Your task to perform on an android device: turn on the 24-hour format for clock Image 0: 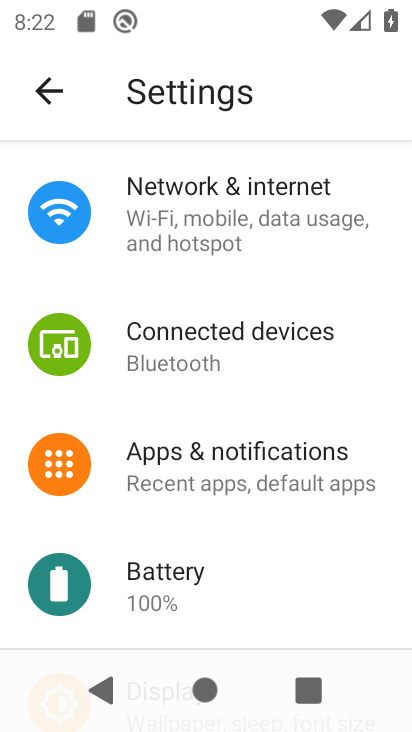
Step 0: press home button
Your task to perform on an android device: turn on the 24-hour format for clock Image 1: 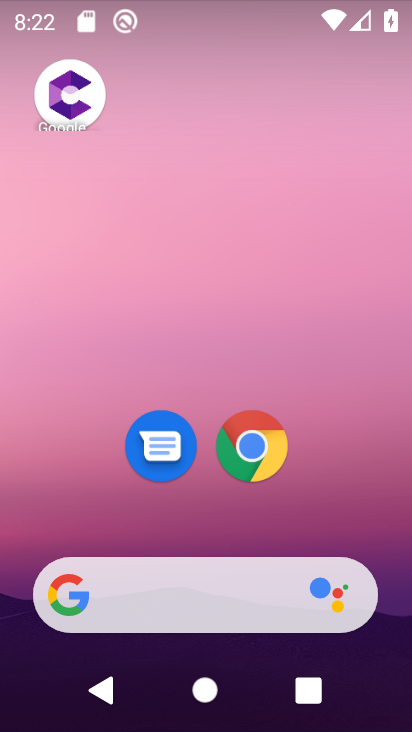
Step 1: drag from (204, 601) to (161, 105)
Your task to perform on an android device: turn on the 24-hour format for clock Image 2: 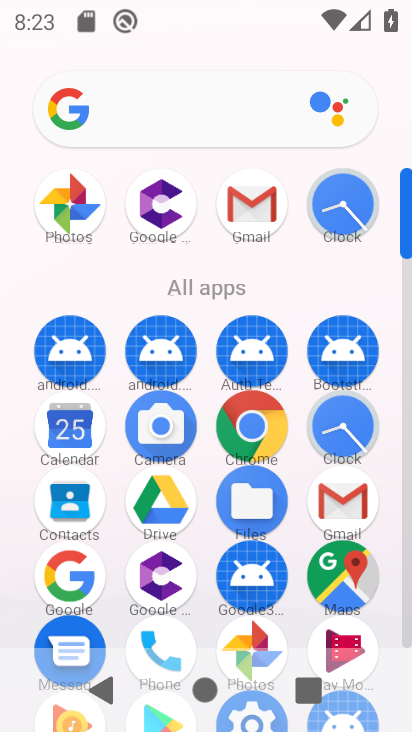
Step 2: drag from (248, 621) to (239, 325)
Your task to perform on an android device: turn on the 24-hour format for clock Image 3: 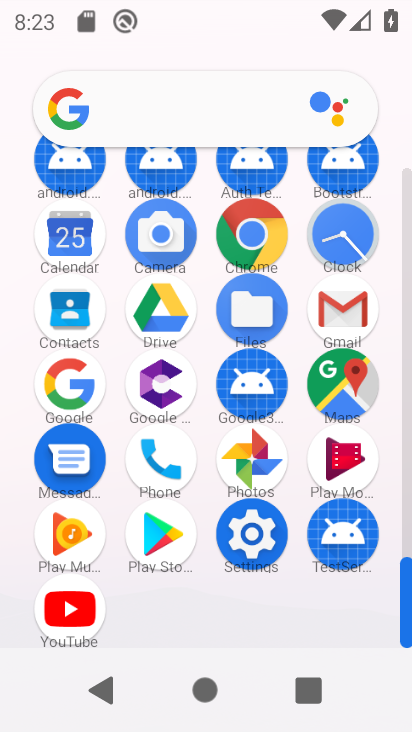
Step 3: click (235, 551)
Your task to perform on an android device: turn on the 24-hour format for clock Image 4: 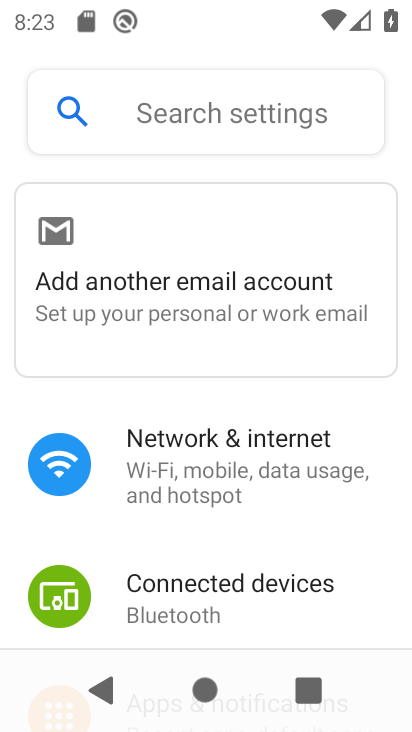
Step 4: drag from (235, 551) to (250, 38)
Your task to perform on an android device: turn on the 24-hour format for clock Image 5: 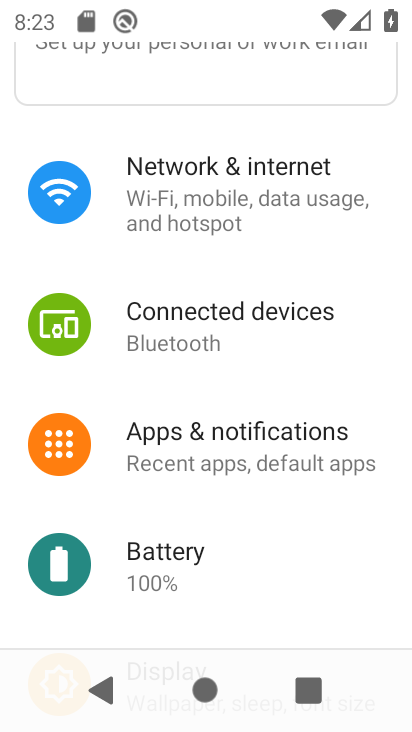
Step 5: drag from (184, 483) to (213, 207)
Your task to perform on an android device: turn on the 24-hour format for clock Image 6: 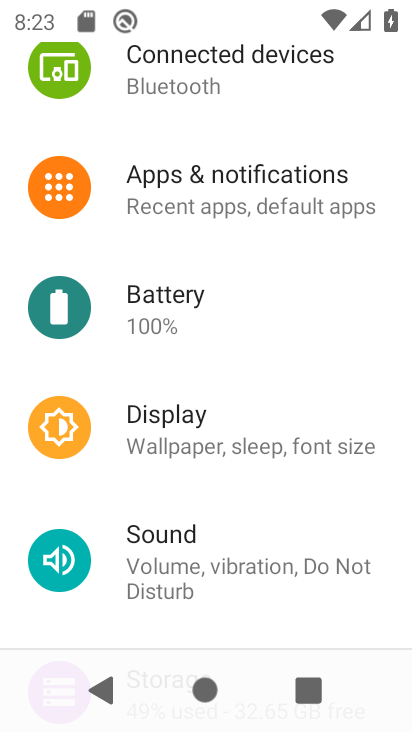
Step 6: drag from (224, 551) to (292, 312)
Your task to perform on an android device: turn on the 24-hour format for clock Image 7: 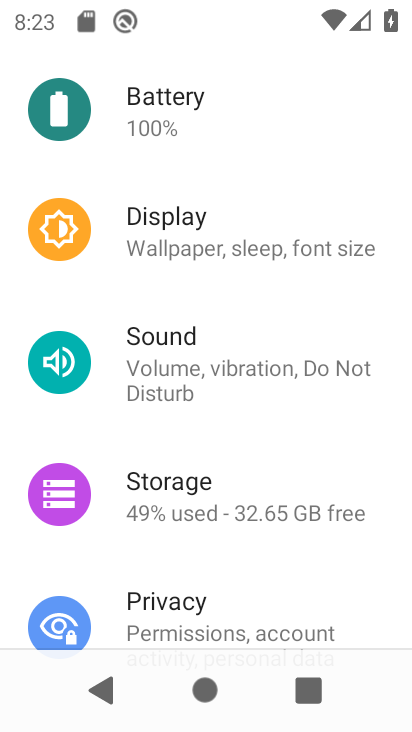
Step 7: drag from (240, 540) to (272, 177)
Your task to perform on an android device: turn on the 24-hour format for clock Image 8: 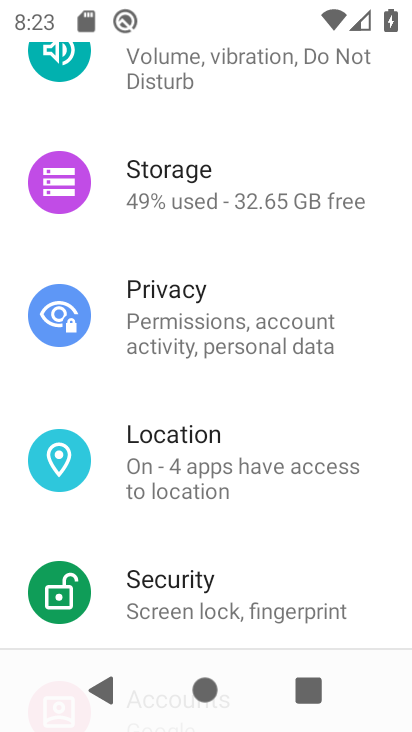
Step 8: drag from (245, 482) to (266, 274)
Your task to perform on an android device: turn on the 24-hour format for clock Image 9: 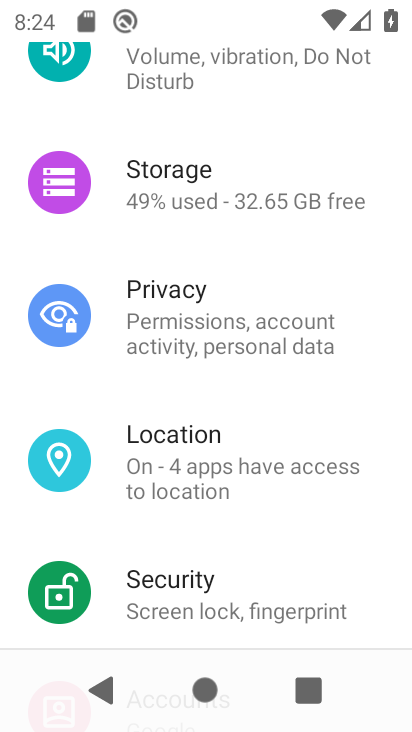
Step 9: drag from (213, 529) to (273, 120)
Your task to perform on an android device: turn on the 24-hour format for clock Image 10: 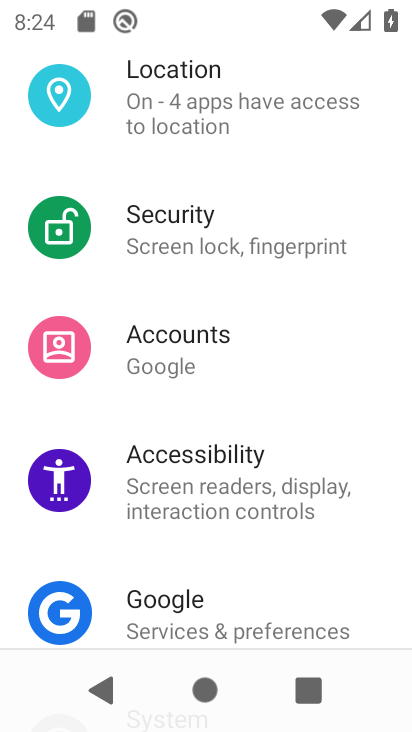
Step 10: drag from (200, 518) to (162, 3)
Your task to perform on an android device: turn on the 24-hour format for clock Image 11: 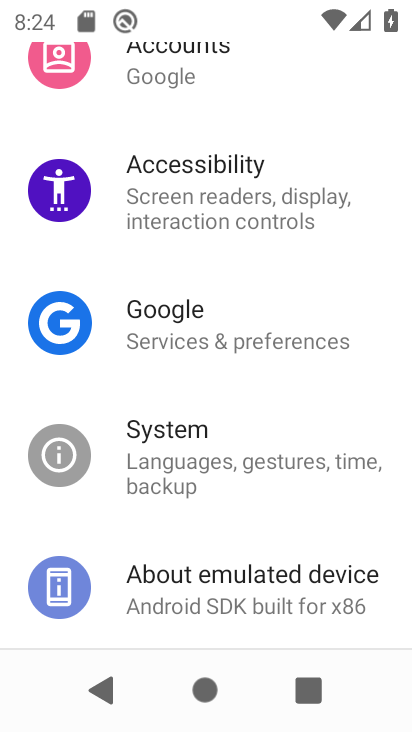
Step 11: click (168, 459)
Your task to perform on an android device: turn on the 24-hour format for clock Image 12: 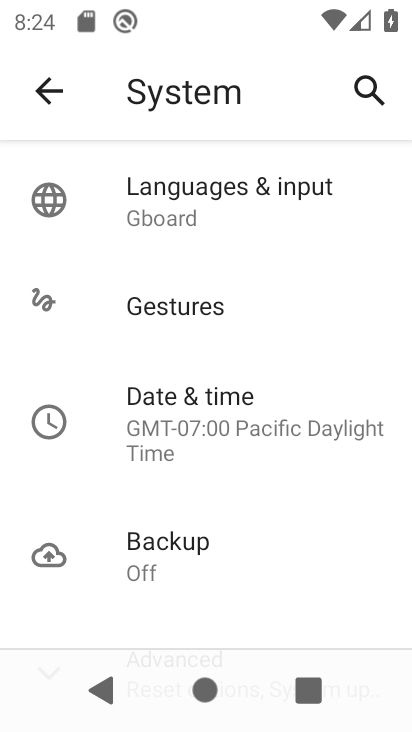
Step 12: click (184, 454)
Your task to perform on an android device: turn on the 24-hour format for clock Image 13: 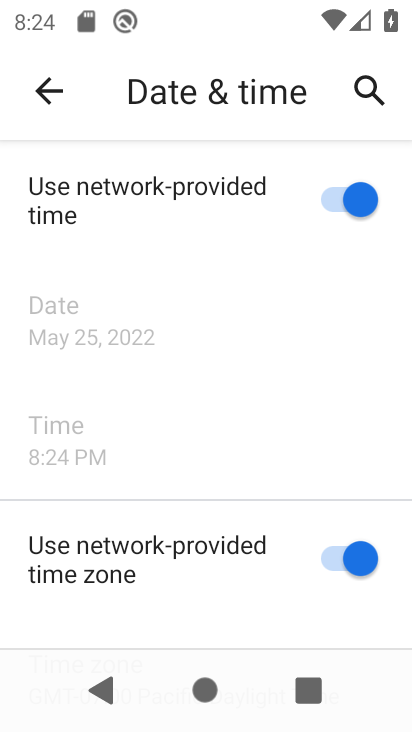
Step 13: drag from (249, 597) to (277, 97)
Your task to perform on an android device: turn on the 24-hour format for clock Image 14: 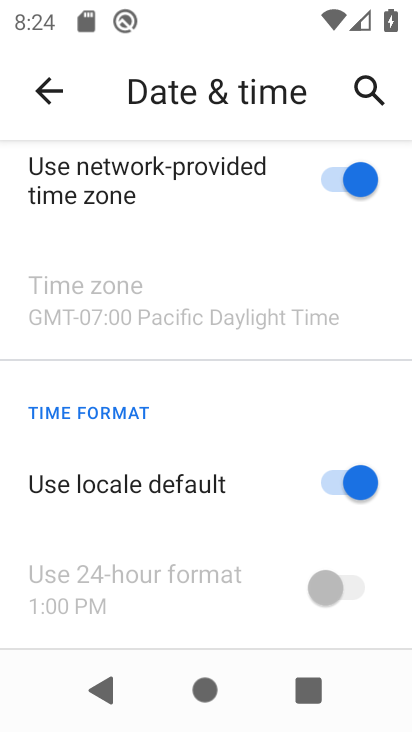
Step 14: drag from (180, 504) to (162, 262)
Your task to perform on an android device: turn on the 24-hour format for clock Image 15: 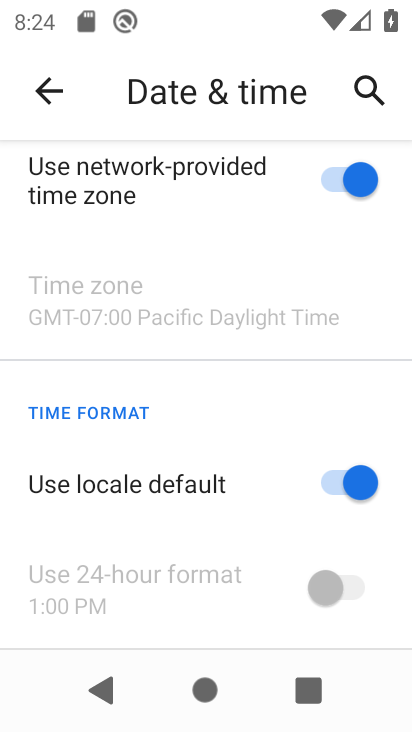
Step 15: click (332, 476)
Your task to perform on an android device: turn on the 24-hour format for clock Image 16: 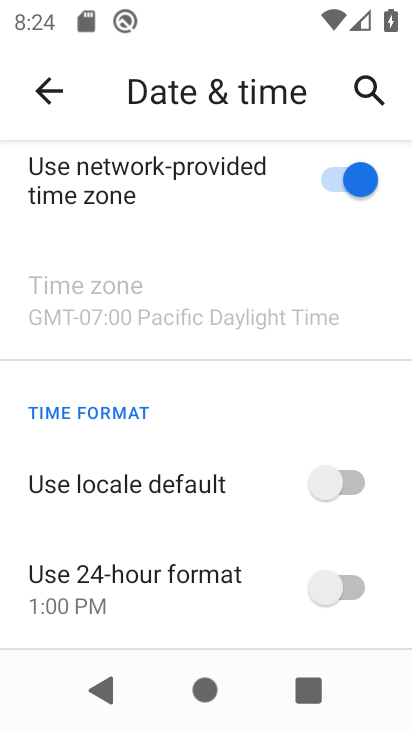
Step 16: click (348, 582)
Your task to perform on an android device: turn on the 24-hour format for clock Image 17: 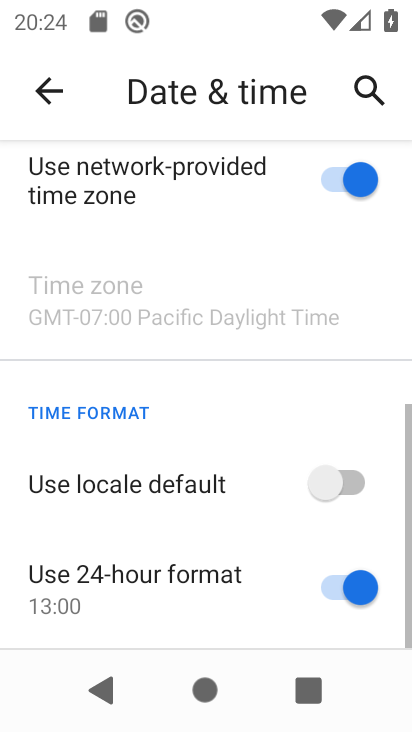
Step 17: task complete